Your task to perform on an android device: Open Google Image 0: 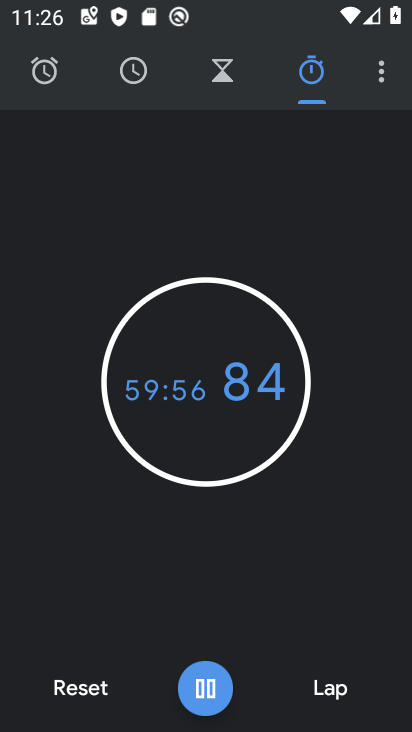
Step 0: click (323, 95)
Your task to perform on an android device: Open Google Image 1: 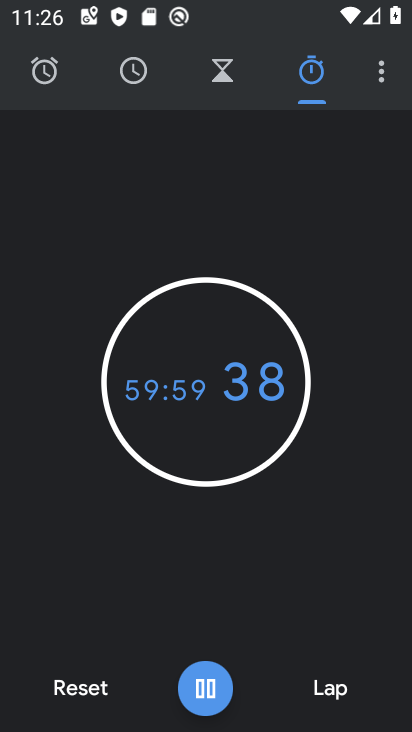
Step 1: press home button
Your task to perform on an android device: Open Google Image 2: 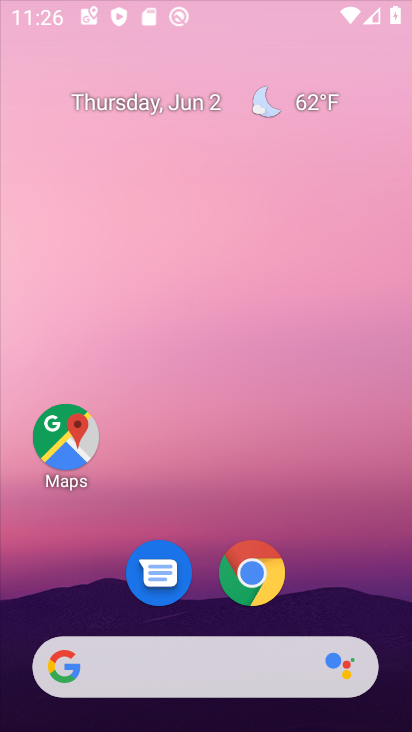
Step 2: drag from (171, 594) to (290, 8)
Your task to perform on an android device: Open Google Image 3: 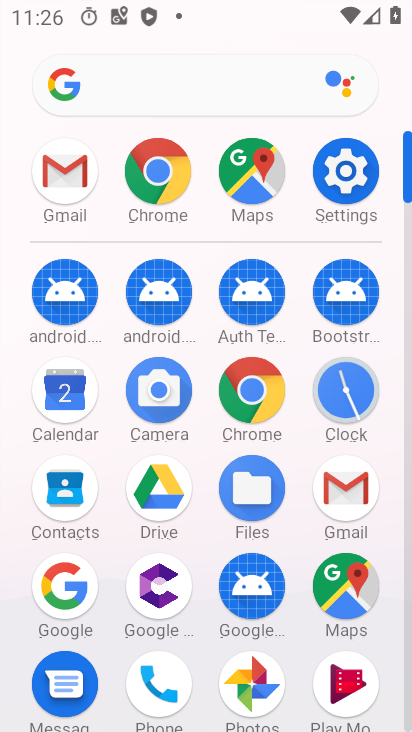
Step 3: click (232, 400)
Your task to perform on an android device: Open Google Image 4: 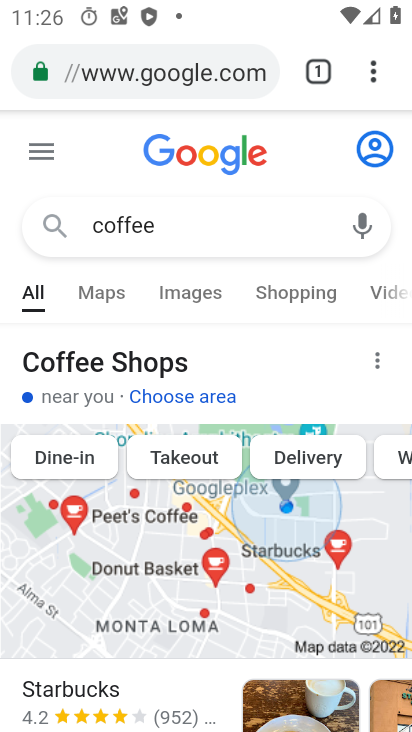
Step 4: task complete